Your task to perform on an android device: move a message to another label in the gmail app Image 0: 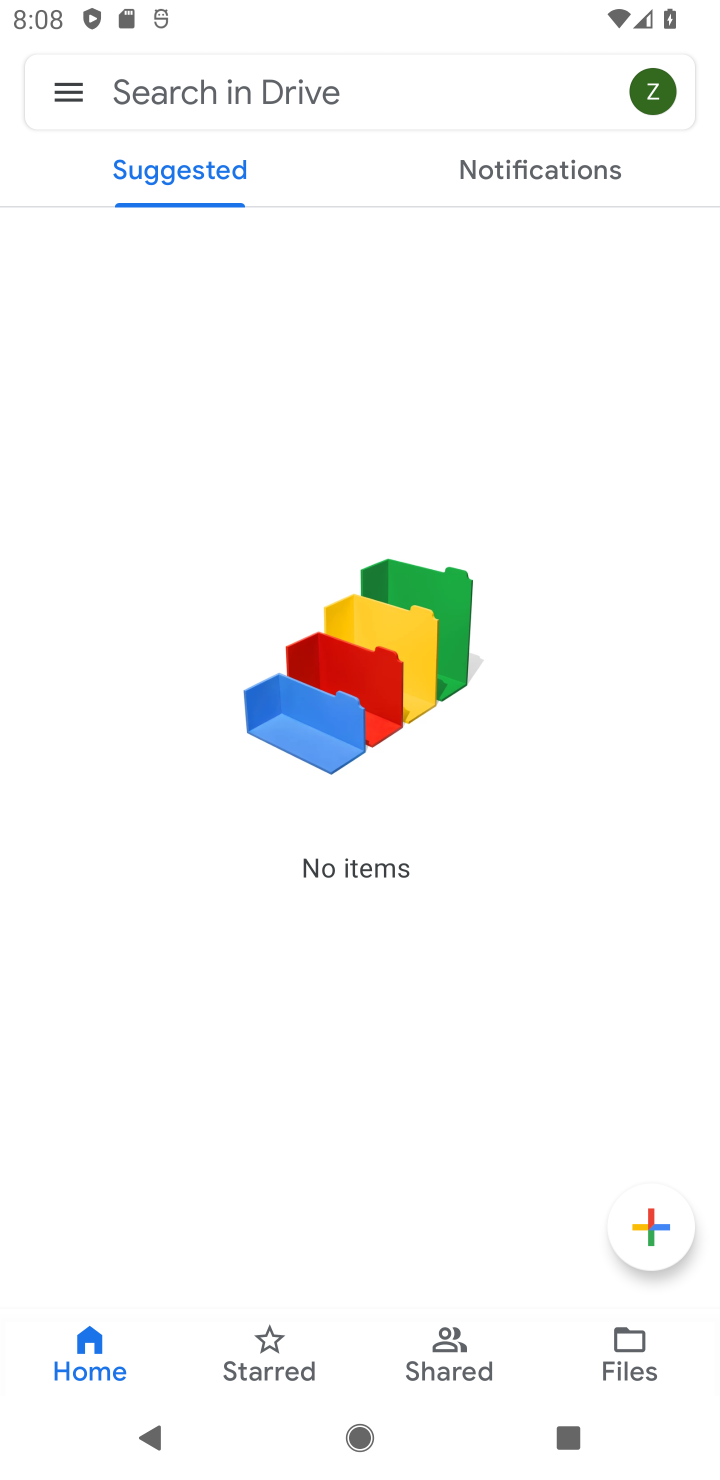
Step 0: press home button
Your task to perform on an android device: move a message to another label in the gmail app Image 1: 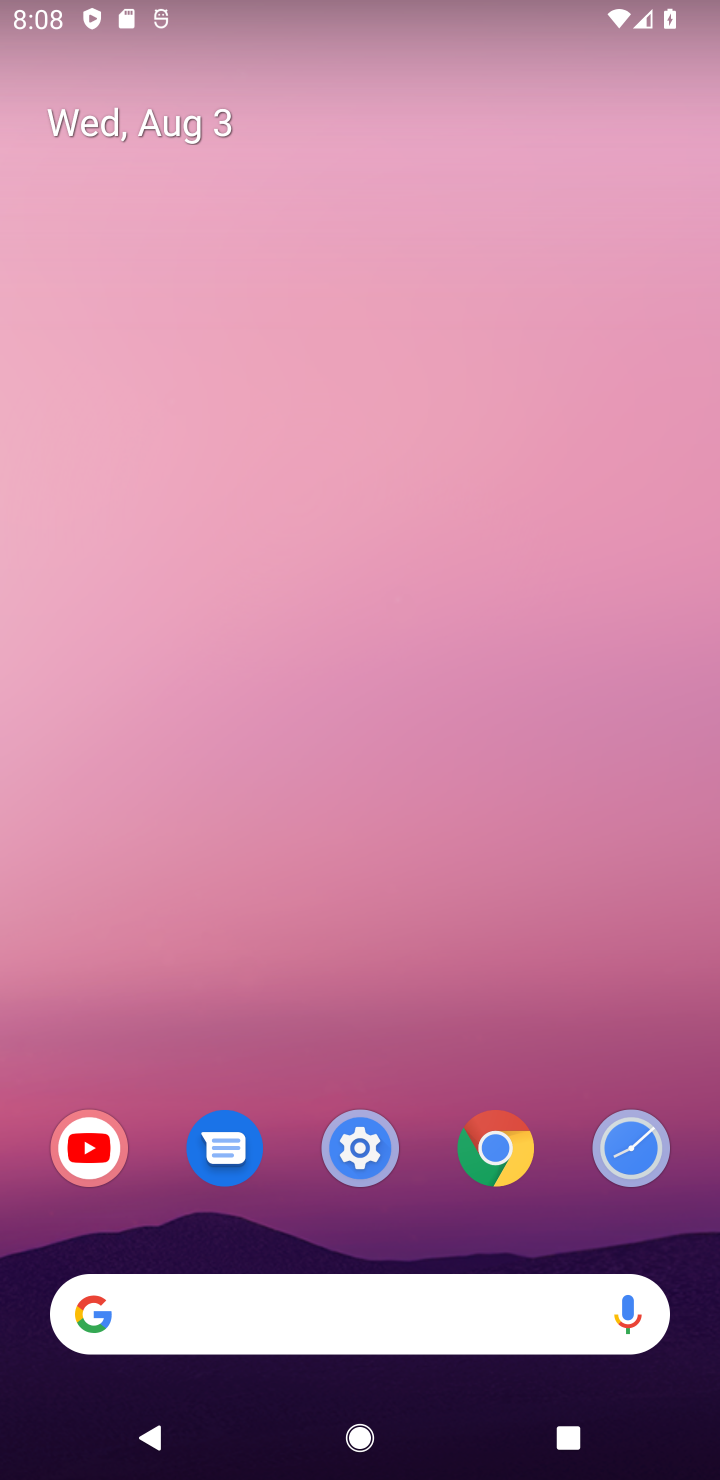
Step 1: drag from (481, 996) to (680, 230)
Your task to perform on an android device: move a message to another label in the gmail app Image 2: 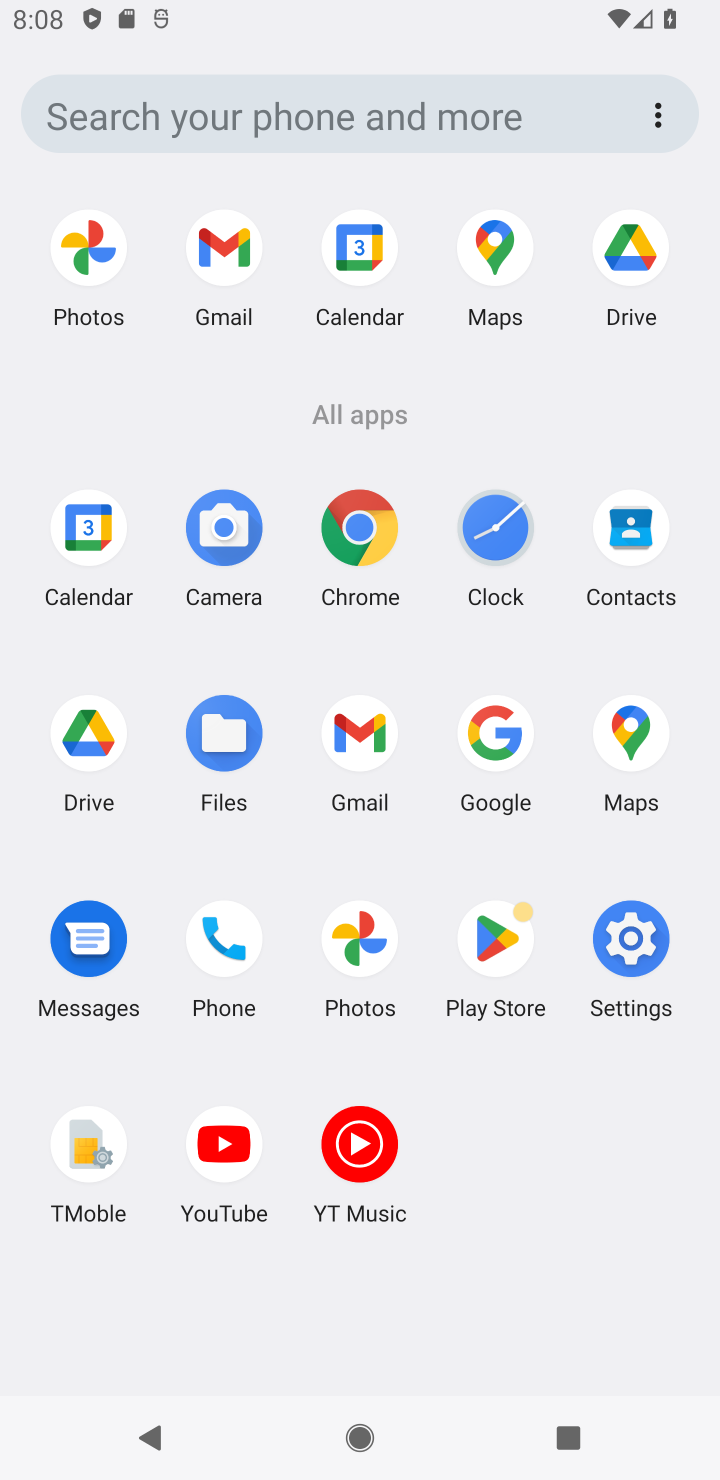
Step 2: click (344, 760)
Your task to perform on an android device: move a message to another label in the gmail app Image 3: 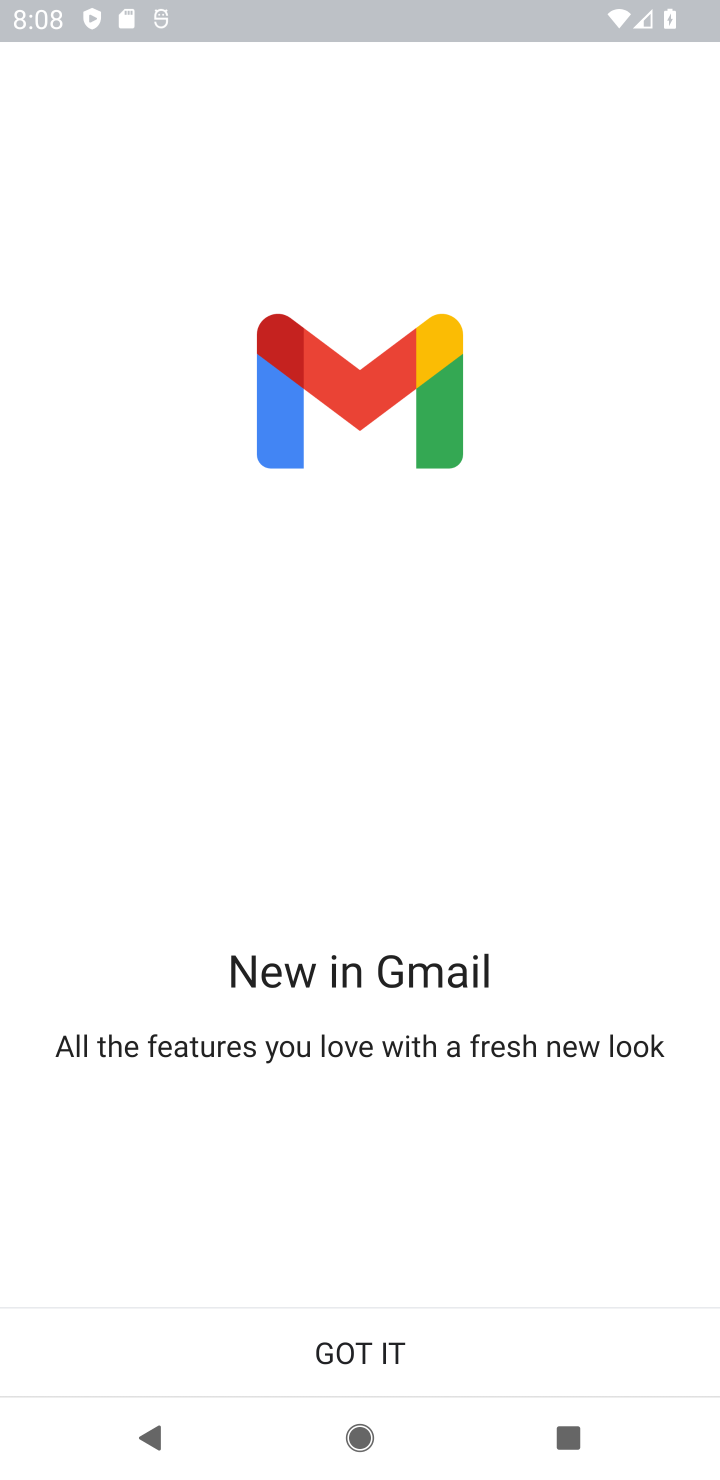
Step 3: click (363, 1329)
Your task to perform on an android device: move a message to another label in the gmail app Image 4: 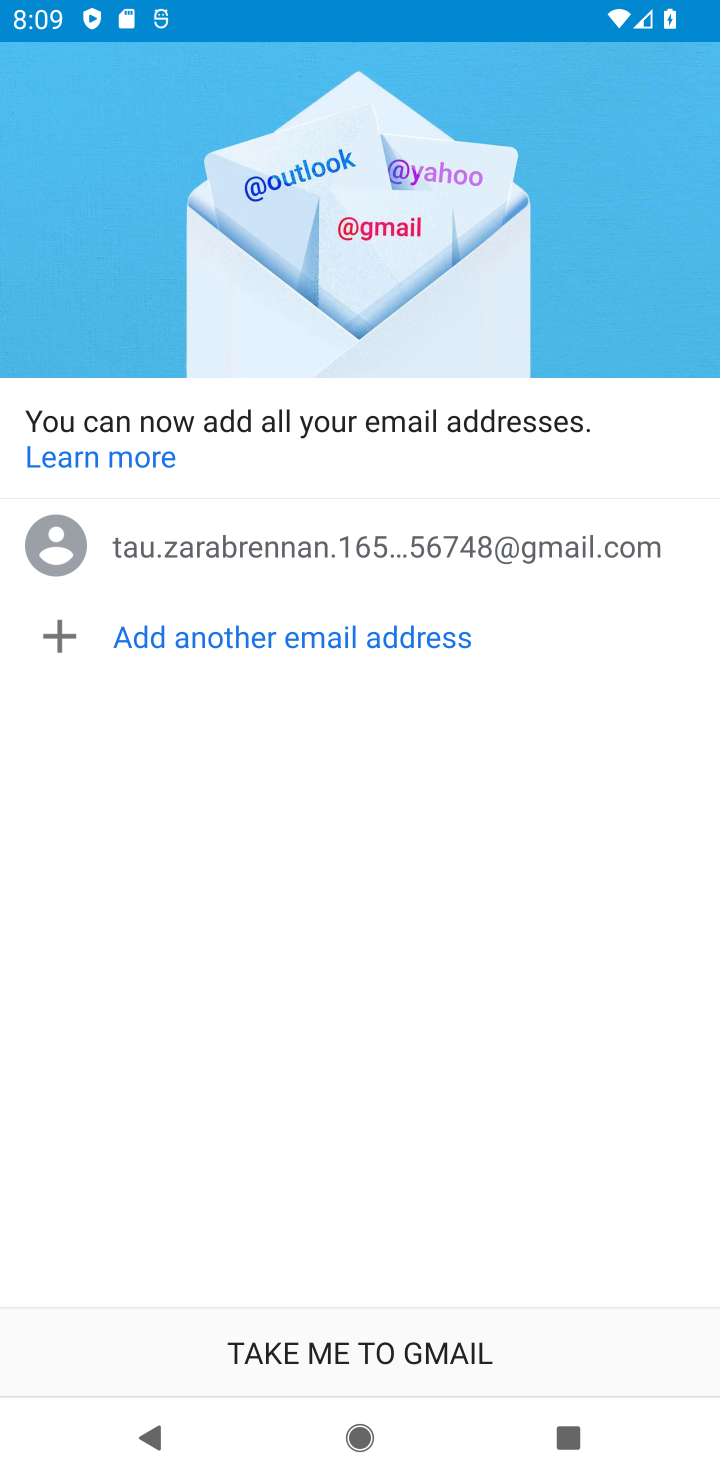
Step 4: click (356, 1351)
Your task to perform on an android device: move a message to another label in the gmail app Image 5: 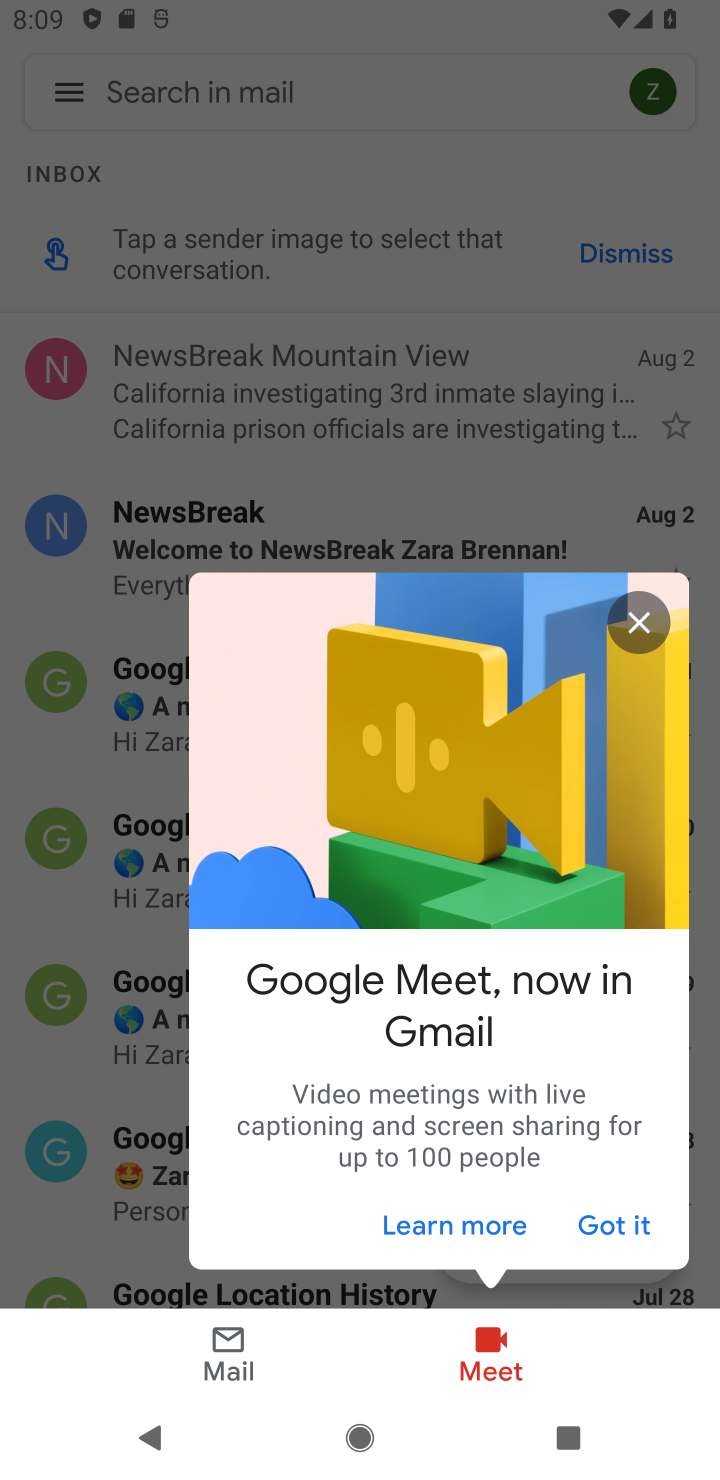
Step 5: task complete